Your task to perform on an android device: check the backup settings in the google photos Image 0: 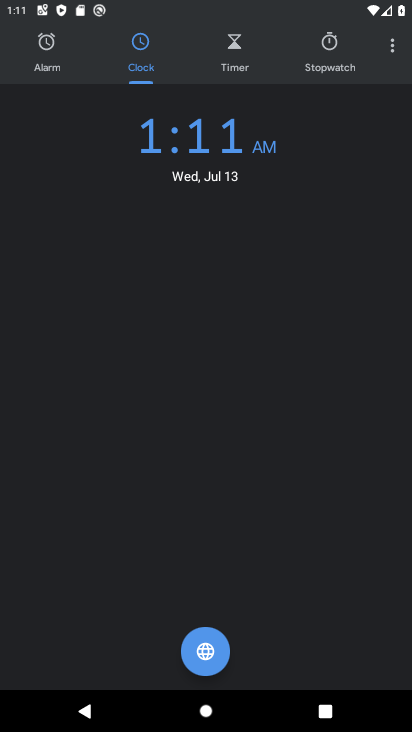
Step 0: press home button
Your task to perform on an android device: check the backup settings in the google photos Image 1: 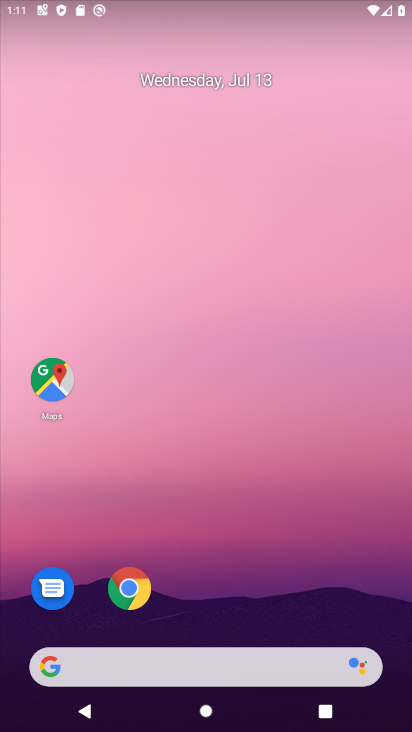
Step 1: drag from (183, 624) to (162, 227)
Your task to perform on an android device: check the backup settings in the google photos Image 2: 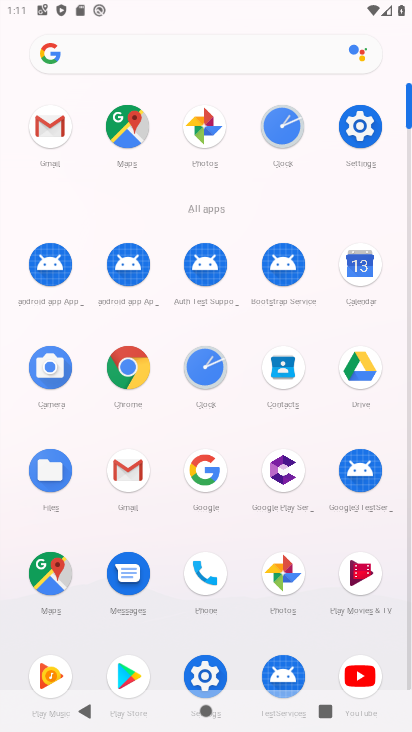
Step 2: click (195, 131)
Your task to perform on an android device: check the backup settings in the google photos Image 3: 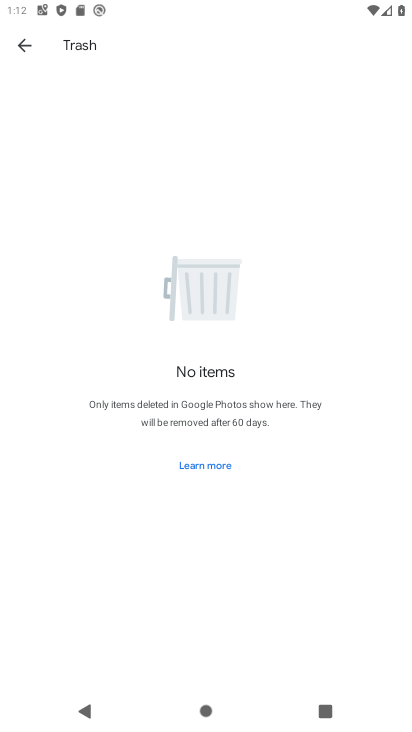
Step 3: click (17, 45)
Your task to perform on an android device: check the backup settings in the google photos Image 4: 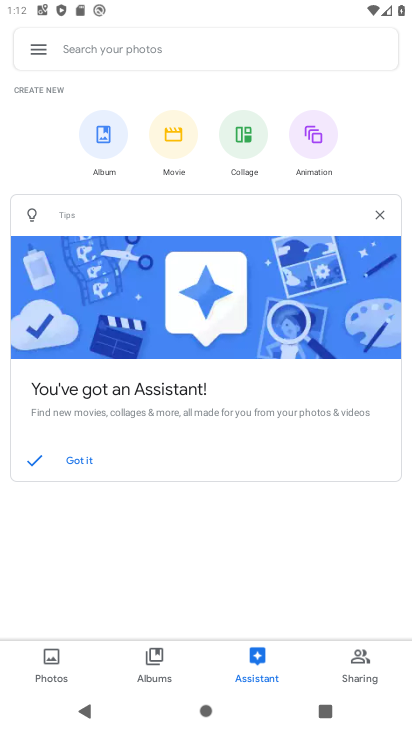
Step 4: click (40, 44)
Your task to perform on an android device: check the backup settings in the google photos Image 5: 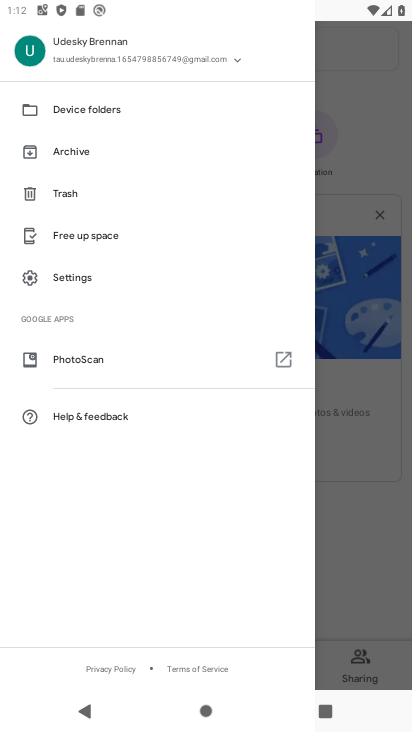
Step 5: click (85, 273)
Your task to perform on an android device: check the backup settings in the google photos Image 6: 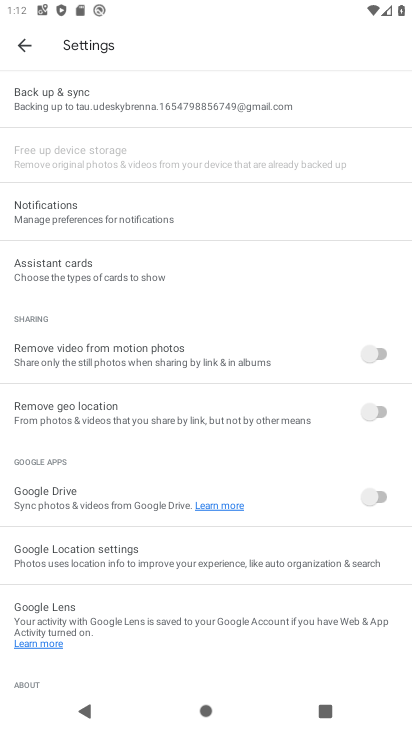
Step 6: click (39, 98)
Your task to perform on an android device: check the backup settings in the google photos Image 7: 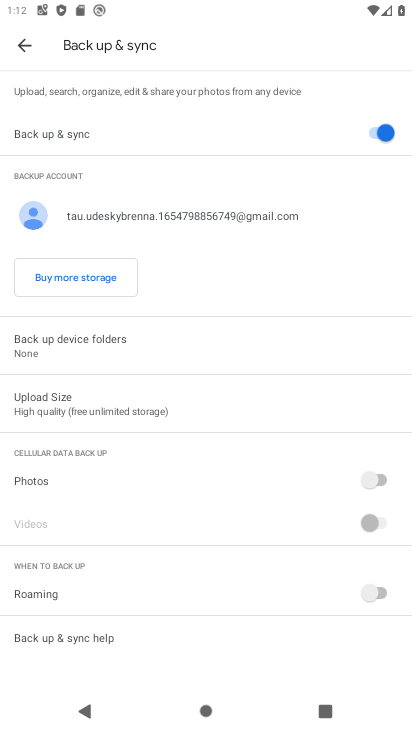
Step 7: task complete